Your task to perform on an android device: check out phone information Image 0: 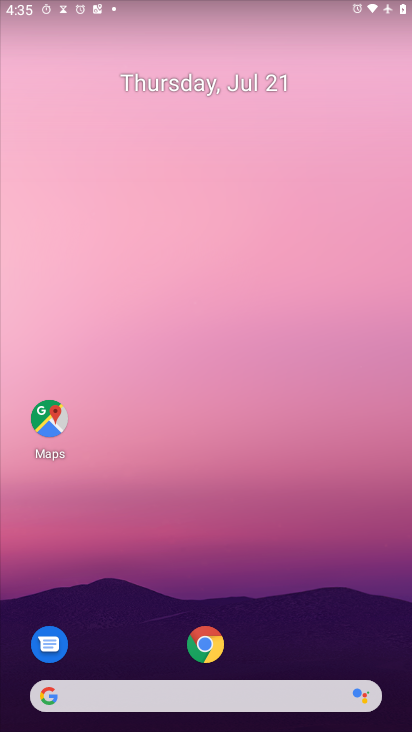
Step 0: press home button
Your task to perform on an android device: check out phone information Image 1: 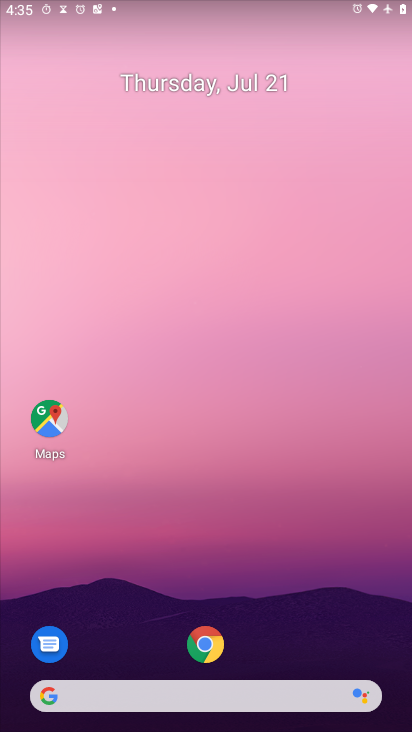
Step 1: drag from (293, 645) to (279, 40)
Your task to perform on an android device: check out phone information Image 2: 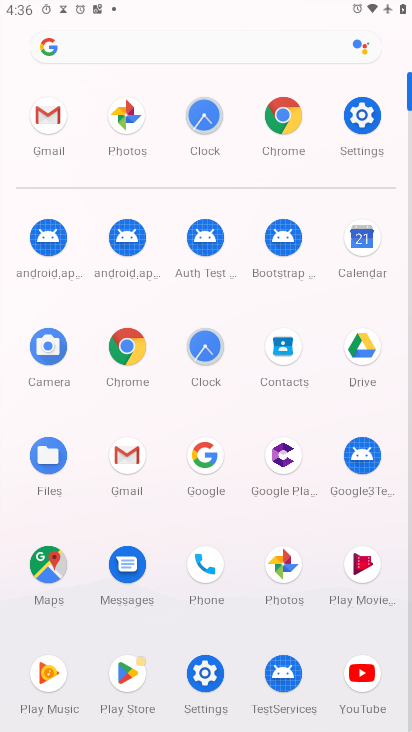
Step 2: click (357, 119)
Your task to perform on an android device: check out phone information Image 3: 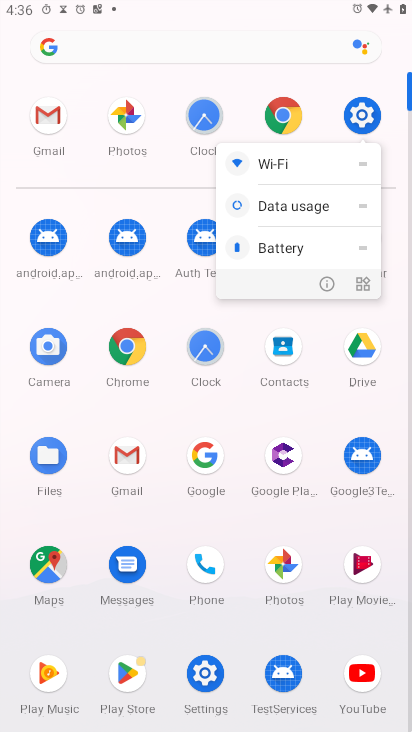
Step 3: click (371, 113)
Your task to perform on an android device: check out phone information Image 4: 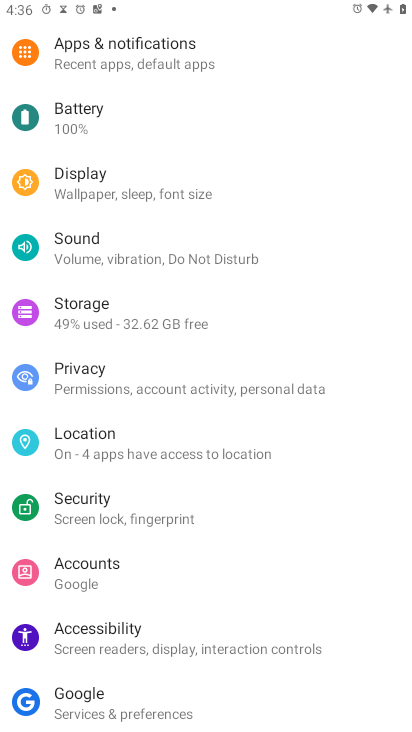
Step 4: drag from (231, 691) to (175, 63)
Your task to perform on an android device: check out phone information Image 5: 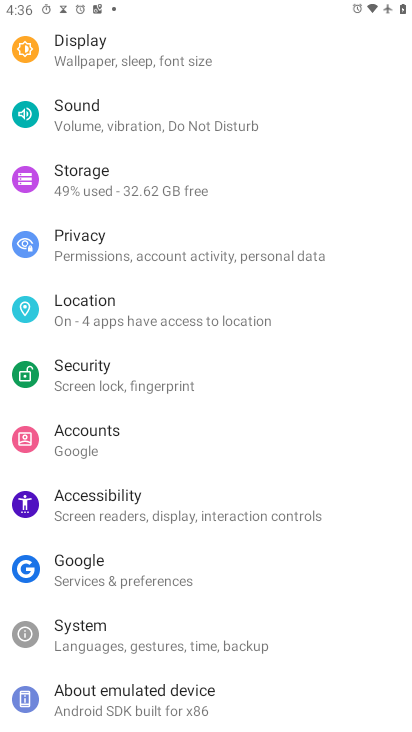
Step 5: click (98, 704)
Your task to perform on an android device: check out phone information Image 6: 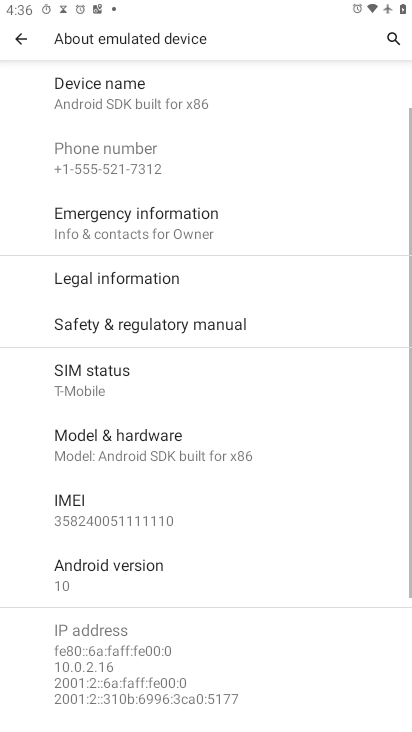
Step 6: task complete